Your task to perform on an android device: turn off priority inbox in the gmail app Image 0: 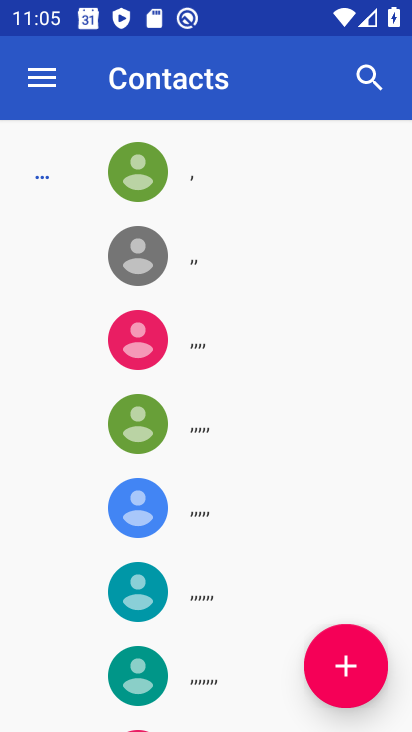
Step 0: press home button
Your task to perform on an android device: turn off priority inbox in the gmail app Image 1: 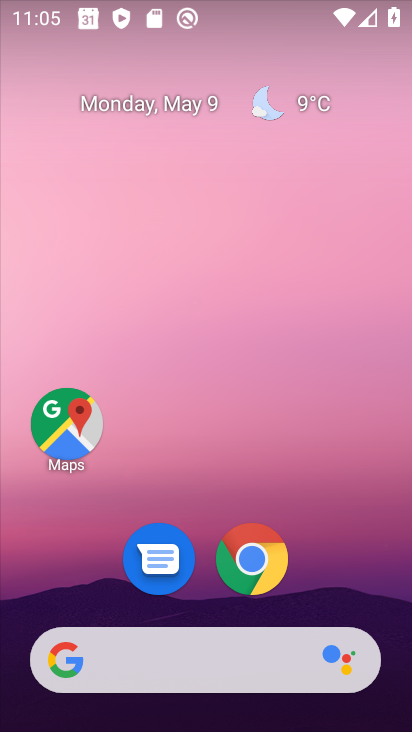
Step 1: drag from (374, 539) to (379, 139)
Your task to perform on an android device: turn off priority inbox in the gmail app Image 2: 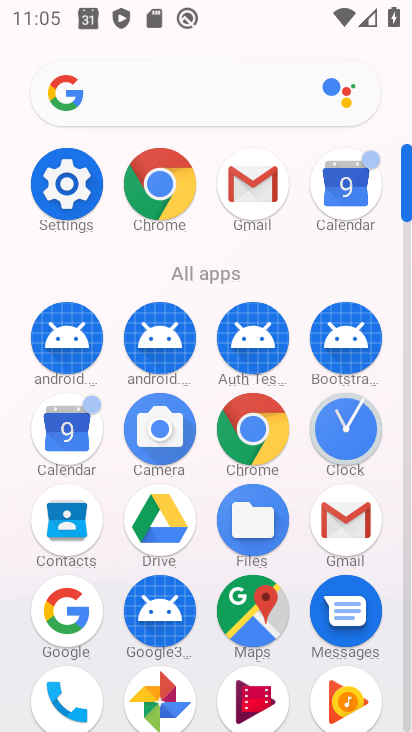
Step 2: click (269, 187)
Your task to perform on an android device: turn off priority inbox in the gmail app Image 3: 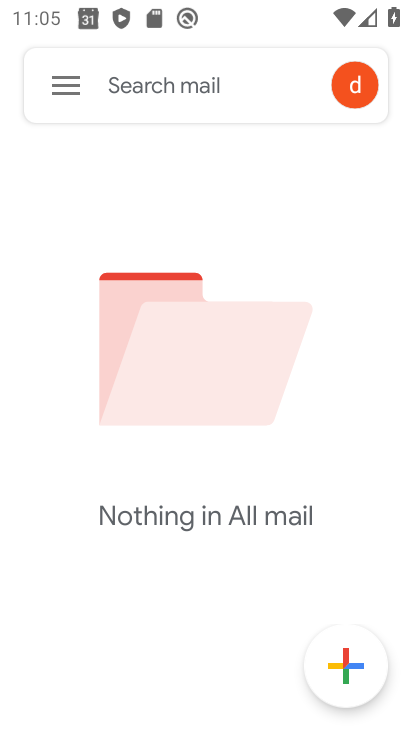
Step 3: click (68, 79)
Your task to perform on an android device: turn off priority inbox in the gmail app Image 4: 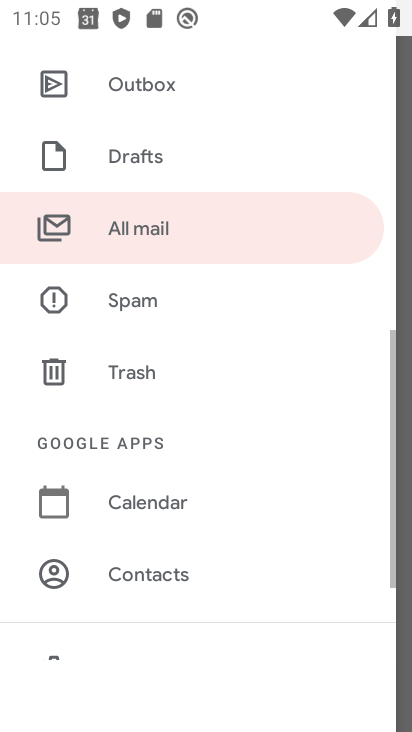
Step 4: drag from (200, 488) to (283, 141)
Your task to perform on an android device: turn off priority inbox in the gmail app Image 5: 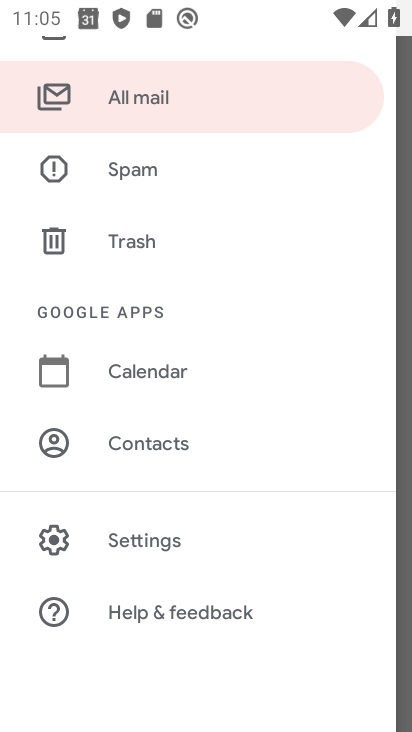
Step 5: drag from (173, 487) to (160, 291)
Your task to perform on an android device: turn off priority inbox in the gmail app Image 6: 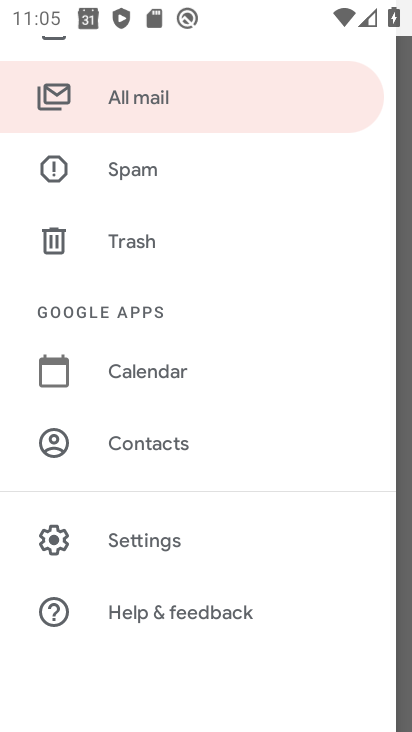
Step 6: click (151, 521)
Your task to perform on an android device: turn off priority inbox in the gmail app Image 7: 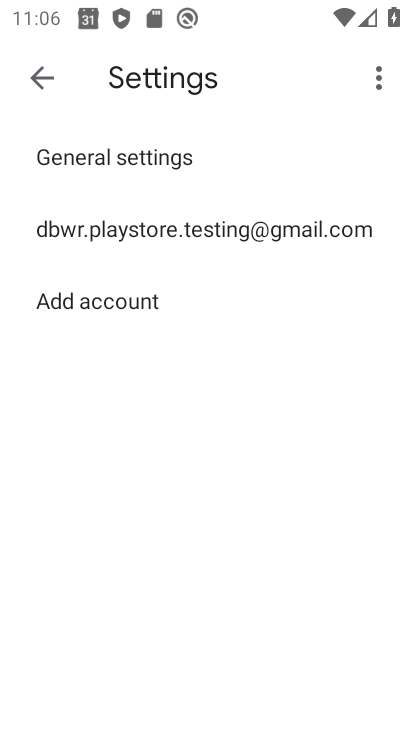
Step 7: click (135, 233)
Your task to perform on an android device: turn off priority inbox in the gmail app Image 8: 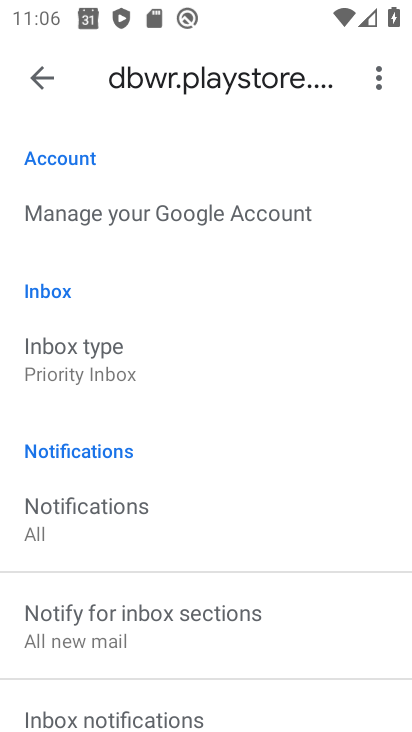
Step 8: drag from (156, 447) to (153, 381)
Your task to perform on an android device: turn off priority inbox in the gmail app Image 9: 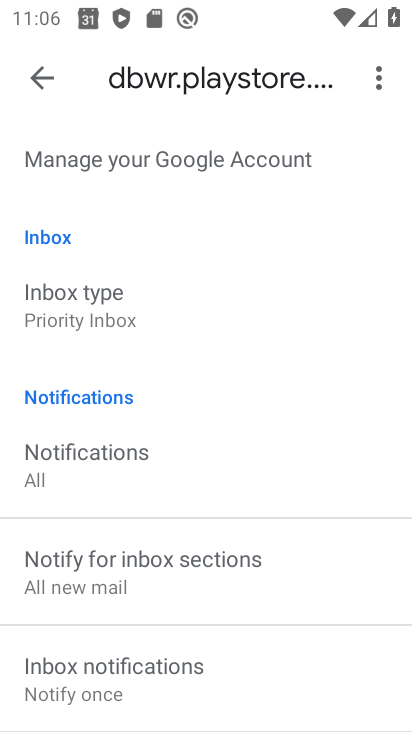
Step 9: click (107, 332)
Your task to perform on an android device: turn off priority inbox in the gmail app Image 10: 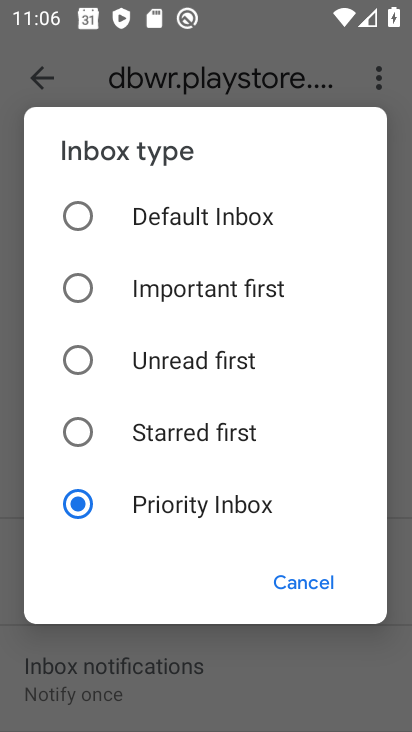
Step 10: click (83, 216)
Your task to perform on an android device: turn off priority inbox in the gmail app Image 11: 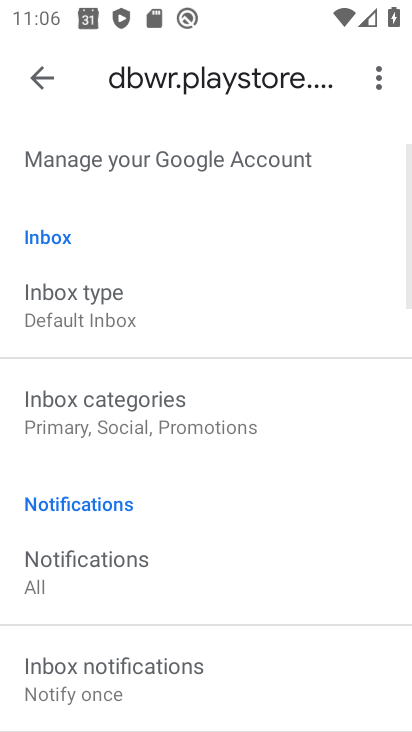
Step 11: task complete